Your task to perform on an android device: Open Youtube and go to "Your channel" Image 0: 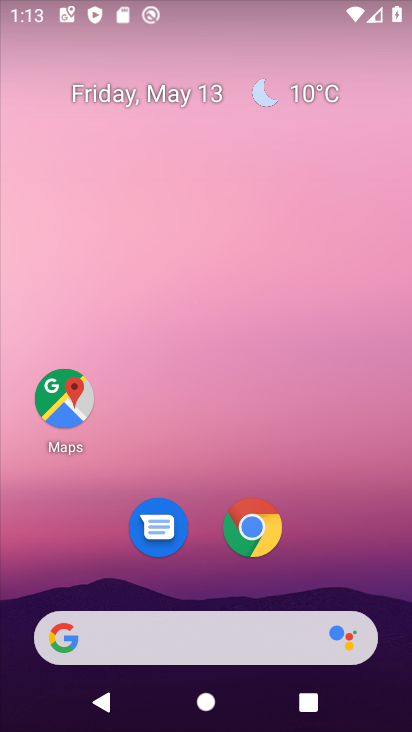
Step 0: drag from (198, 575) to (276, 213)
Your task to perform on an android device: Open Youtube and go to "Your channel" Image 1: 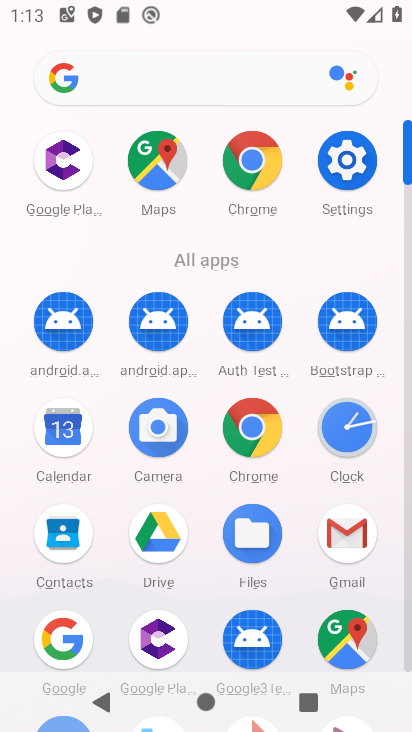
Step 1: drag from (214, 586) to (250, 412)
Your task to perform on an android device: Open Youtube and go to "Your channel" Image 2: 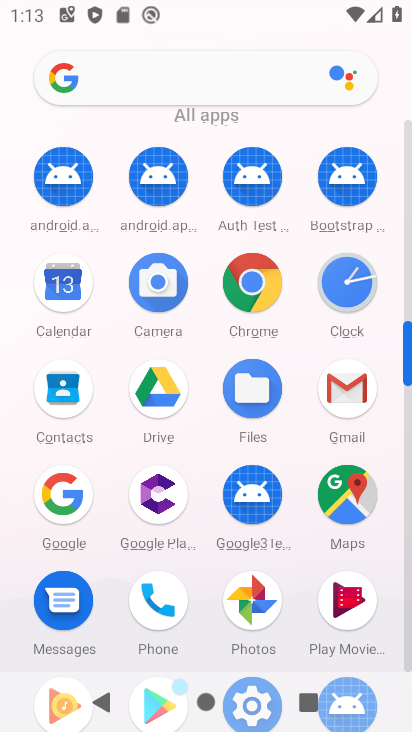
Step 2: drag from (204, 678) to (241, 570)
Your task to perform on an android device: Open Youtube and go to "Your channel" Image 3: 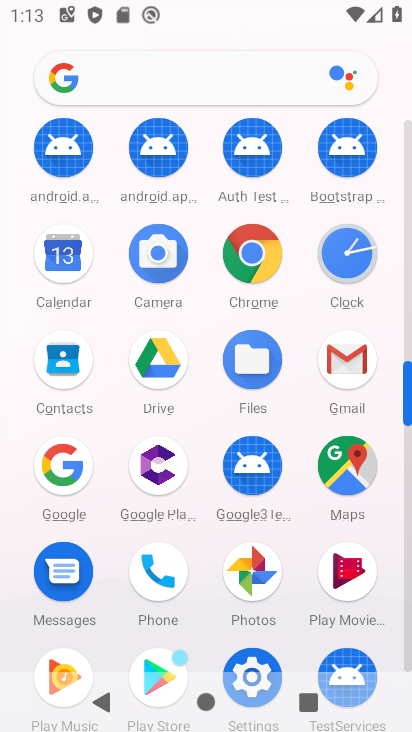
Step 3: drag from (198, 625) to (267, 405)
Your task to perform on an android device: Open Youtube and go to "Your channel" Image 4: 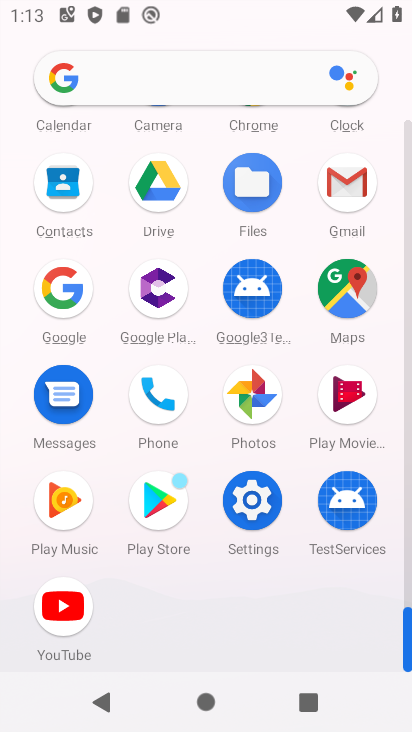
Step 4: click (64, 632)
Your task to perform on an android device: Open Youtube and go to "Your channel" Image 5: 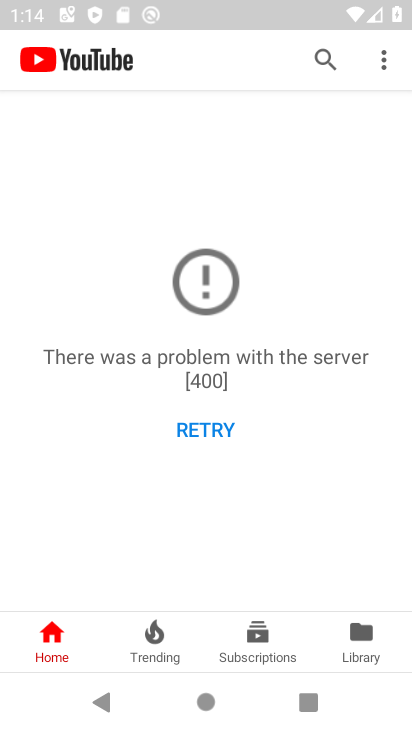
Step 5: click (340, 653)
Your task to perform on an android device: Open Youtube and go to "Your channel" Image 6: 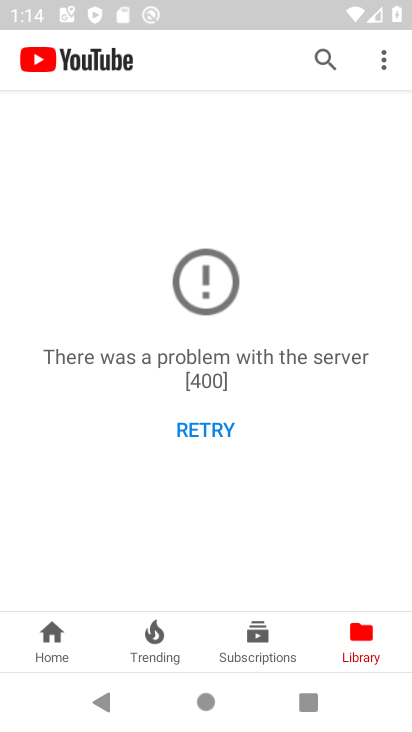
Step 6: task complete